Your task to perform on an android device: change notifications settings Image 0: 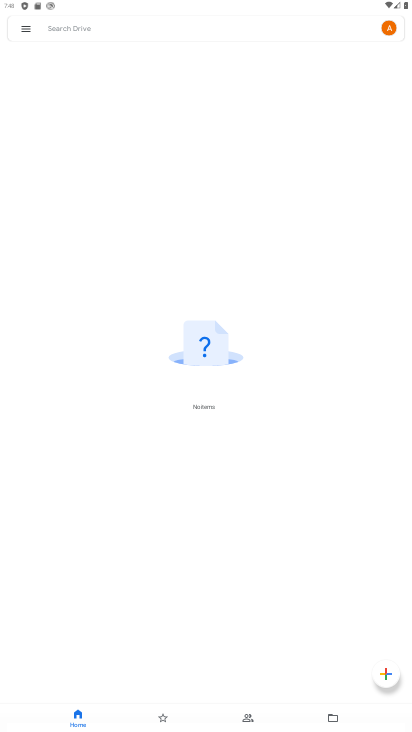
Step 0: press home button
Your task to perform on an android device: change notifications settings Image 1: 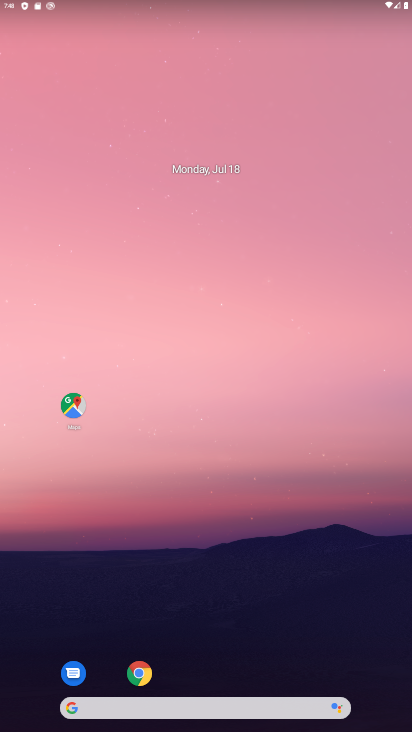
Step 1: drag from (165, 524) to (147, 207)
Your task to perform on an android device: change notifications settings Image 2: 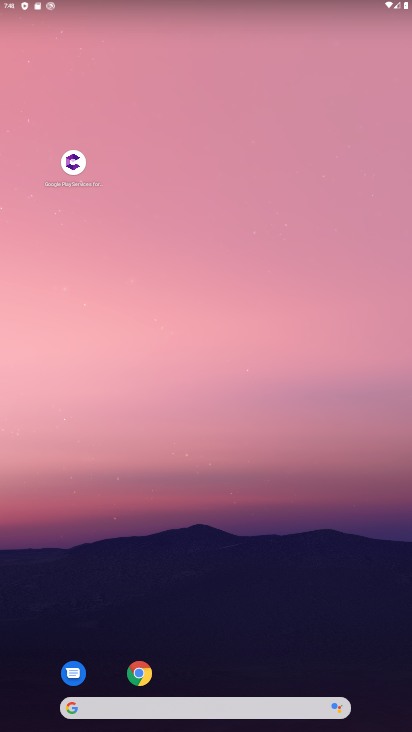
Step 2: drag from (193, 590) to (182, 129)
Your task to perform on an android device: change notifications settings Image 3: 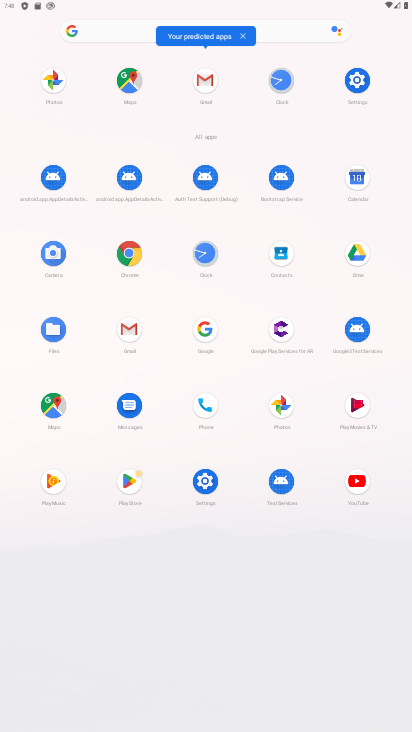
Step 3: click (360, 75)
Your task to perform on an android device: change notifications settings Image 4: 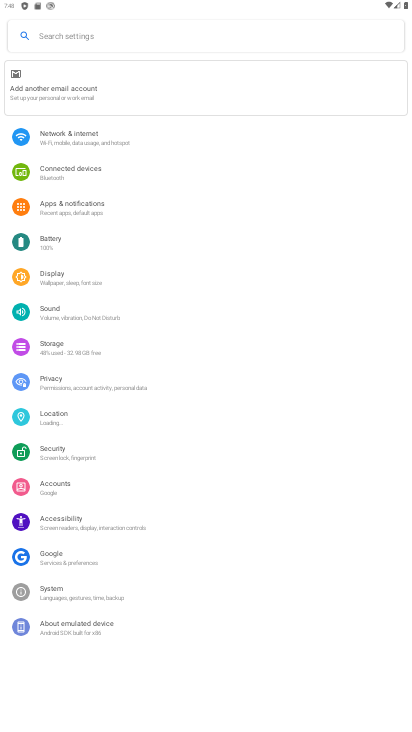
Step 4: click (57, 213)
Your task to perform on an android device: change notifications settings Image 5: 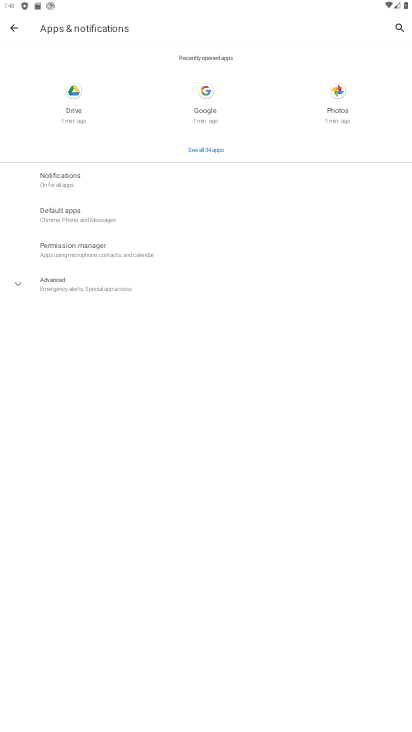
Step 5: click (52, 184)
Your task to perform on an android device: change notifications settings Image 6: 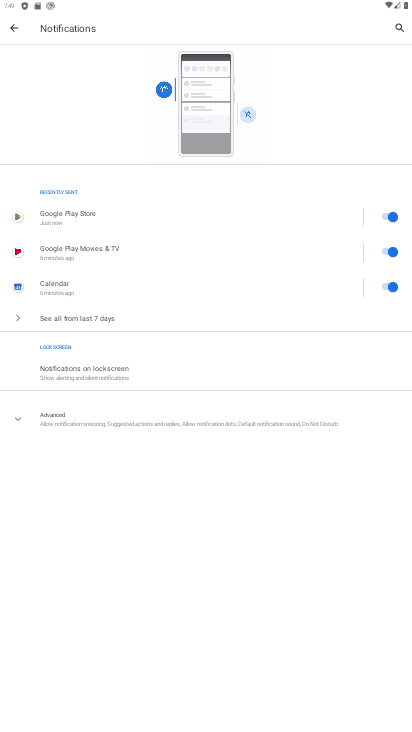
Step 6: click (68, 422)
Your task to perform on an android device: change notifications settings Image 7: 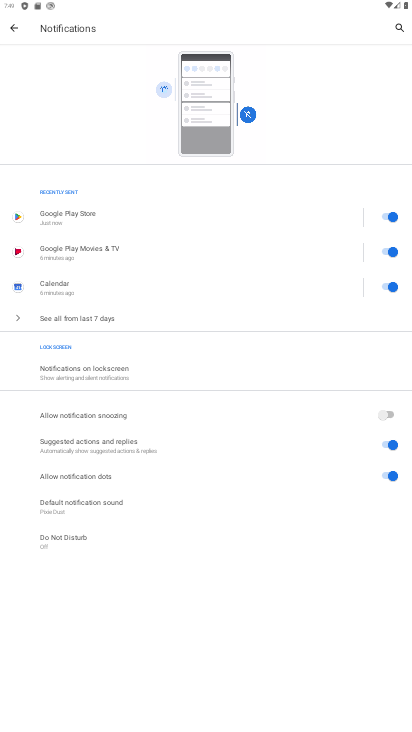
Step 7: click (109, 369)
Your task to perform on an android device: change notifications settings Image 8: 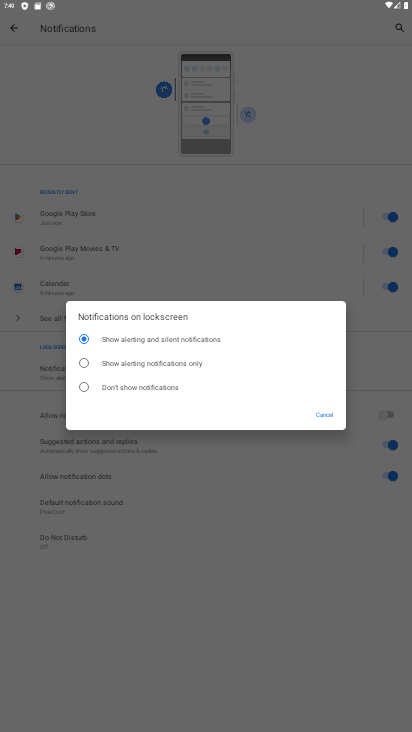
Step 8: click (81, 392)
Your task to perform on an android device: change notifications settings Image 9: 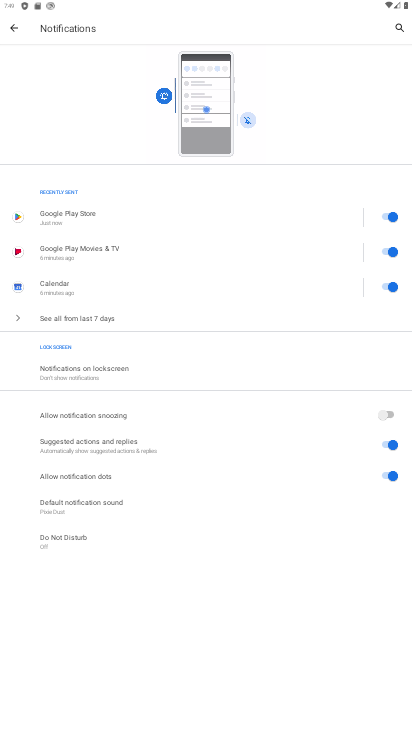
Step 9: task complete